Your task to perform on an android device: Open CNN.com Image 0: 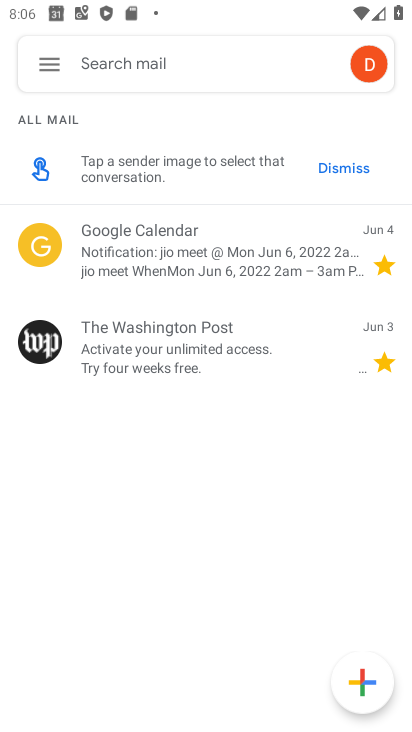
Step 0: press home button
Your task to perform on an android device: Open CNN.com Image 1: 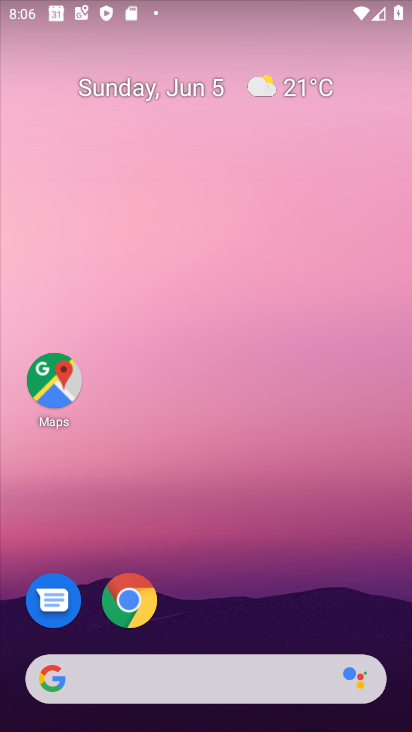
Step 1: click (134, 620)
Your task to perform on an android device: Open CNN.com Image 2: 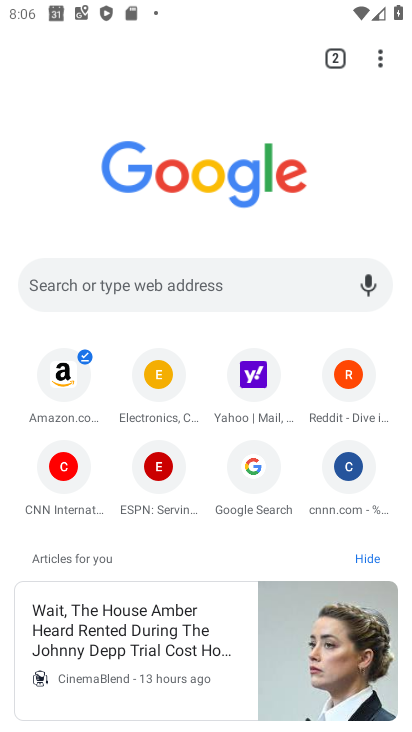
Step 2: click (68, 474)
Your task to perform on an android device: Open CNN.com Image 3: 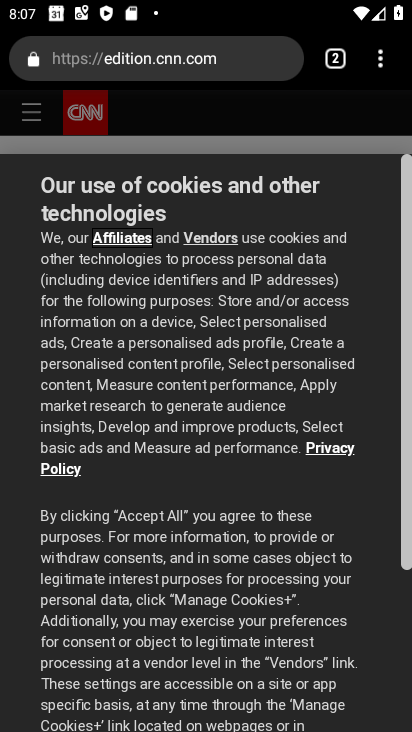
Step 3: task complete